Your task to perform on an android device: turn off improve location accuracy Image 0: 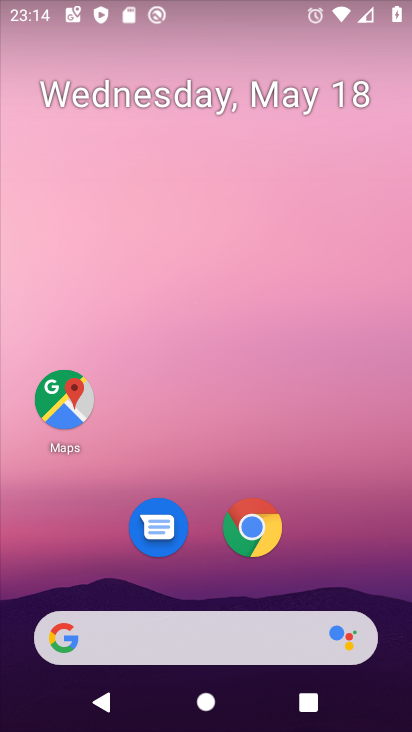
Step 0: drag from (333, 554) to (261, 9)
Your task to perform on an android device: turn off improve location accuracy Image 1: 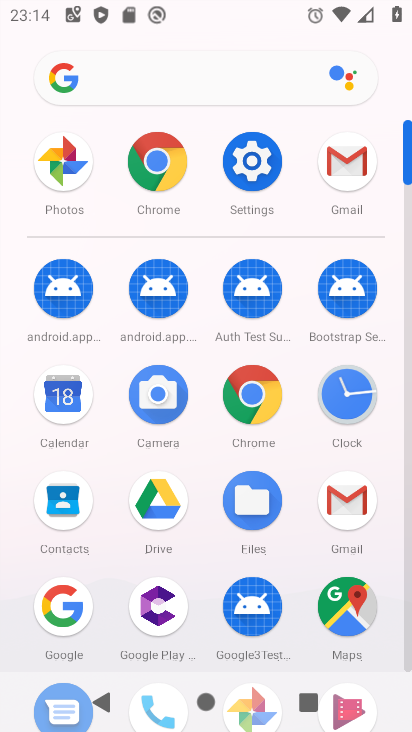
Step 1: click (260, 155)
Your task to perform on an android device: turn off improve location accuracy Image 2: 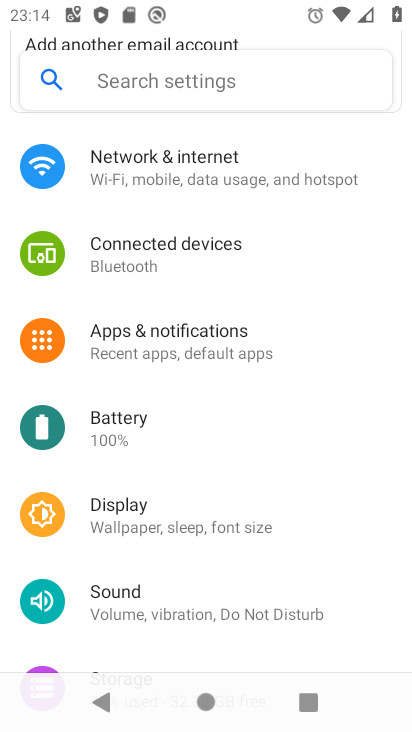
Step 2: click (187, 581)
Your task to perform on an android device: turn off improve location accuracy Image 3: 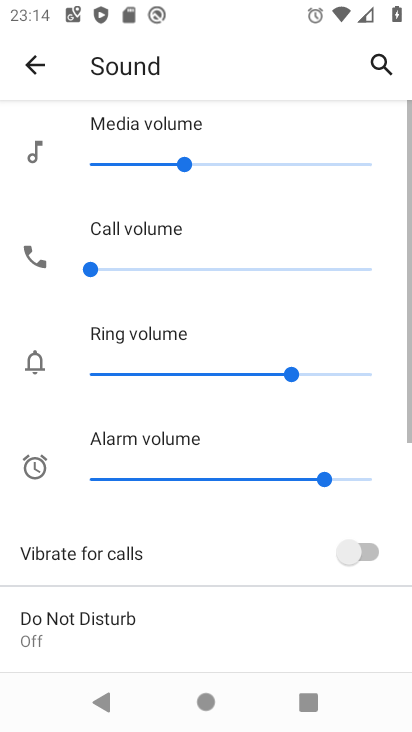
Step 3: click (37, 68)
Your task to perform on an android device: turn off improve location accuracy Image 4: 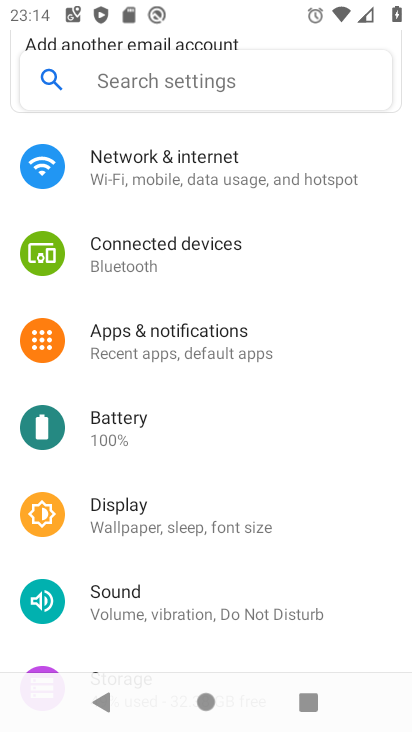
Step 4: click (290, 270)
Your task to perform on an android device: turn off improve location accuracy Image 5: 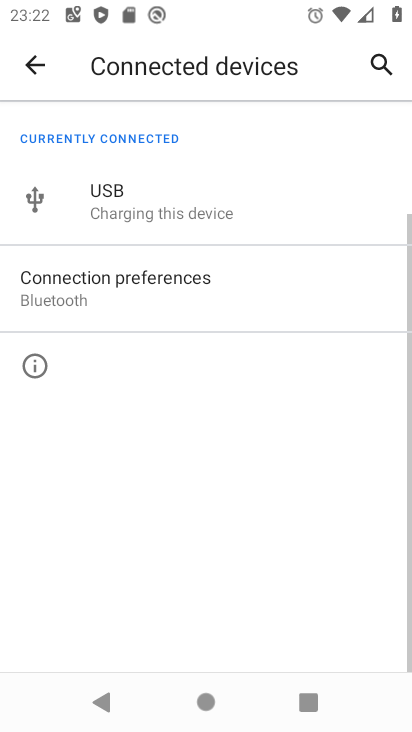
Step 5: click (55, 63)
Your task to perform on an android device: turn off improve location accuracy Image 6: 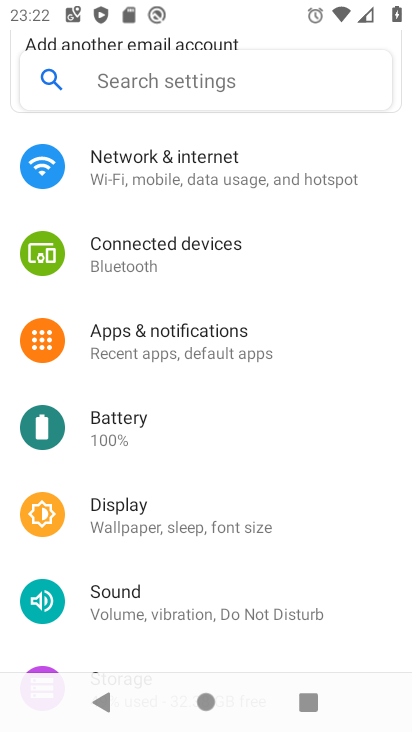
Step 6: drag from (232, 596) to (248, 53)
Your task to perform on an android device: turn off improve location accuracy Image 7: 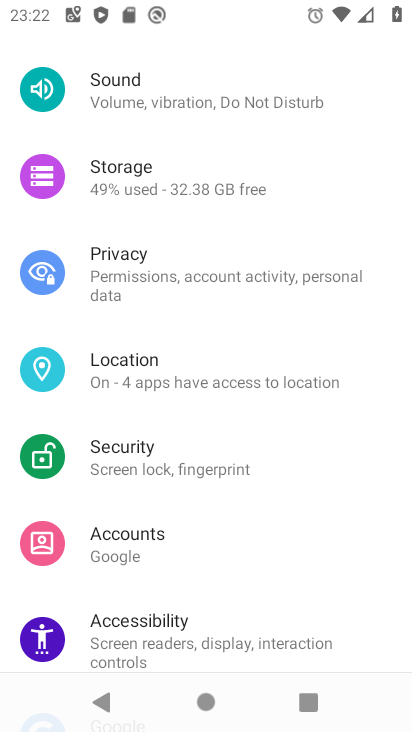
Step 7: drag from (204, 609) to (237, 443)
Your task to perform on an android device: turn off improve location accuracy Image 8: 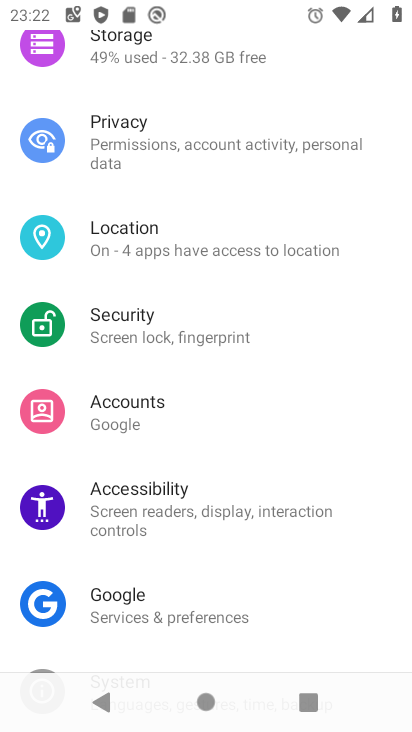
Step 8: click (242, 260)
Your task to perform on an android device: turn off improve location accuracy Image 9: 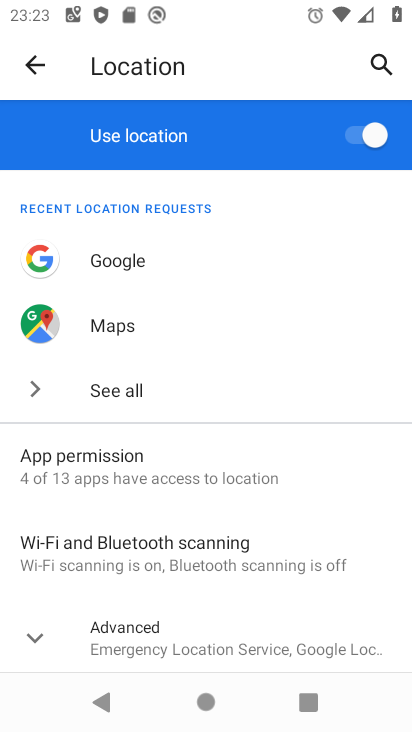
Step 9: drag from (166, 599) to (172, 249)
Your task to perform on an android device: turn off improve location accuracy Image 10: 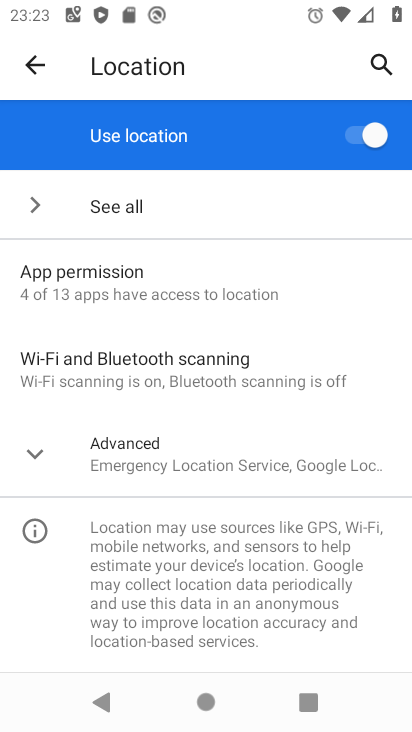
Step 10: click (171, 481)
Your task to perform on an android device: turn off improve location accuracy Image 11: 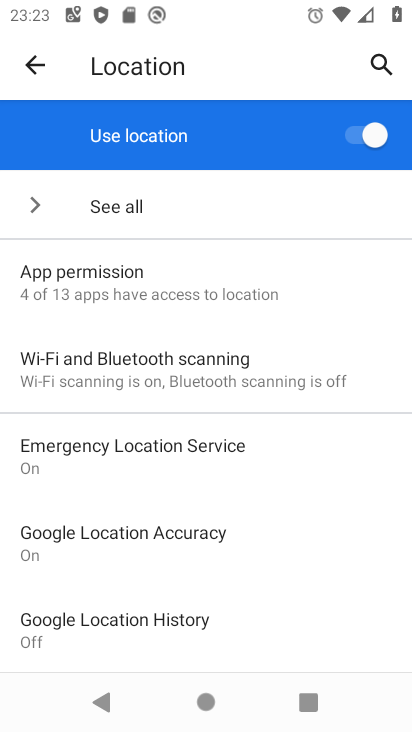
Step 11: click (225, 539)
Your task to perform on an android device: turn off improve location accuracy Image 12: 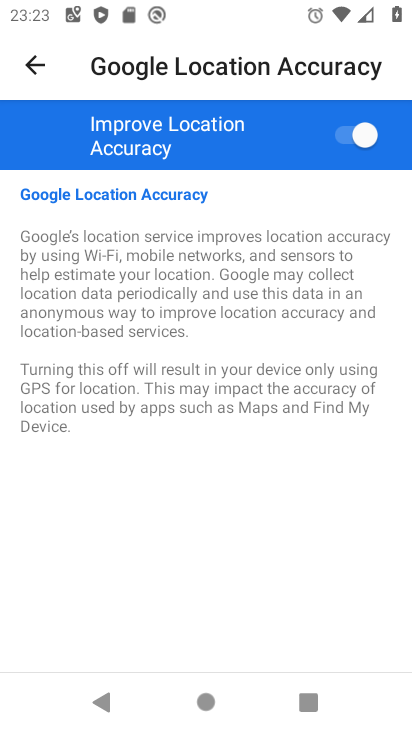
Step 12: click (365, 102)
Your task to perform on an android device: turn off improve location accuracy Image 13: 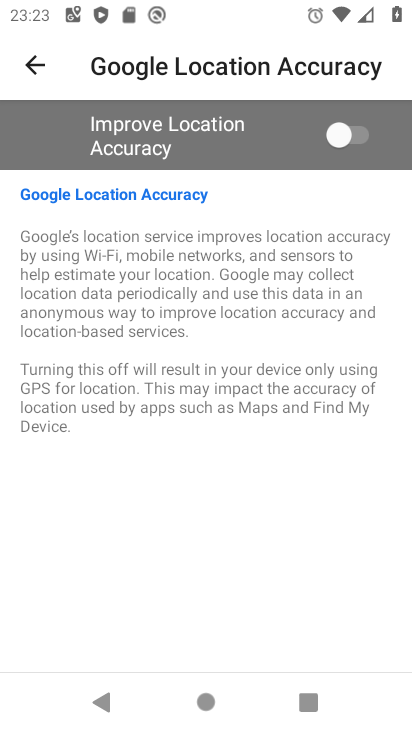
Step 13: task complete